Your task to perform on an android device: turn pop-ups off in chrome Image 0: 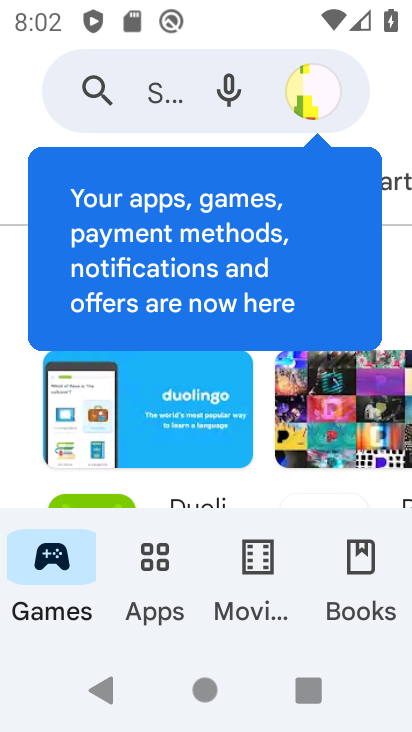
Step 0: press home button
Your task to perform on an android device: turn pop-ups off in chrome Image 1: 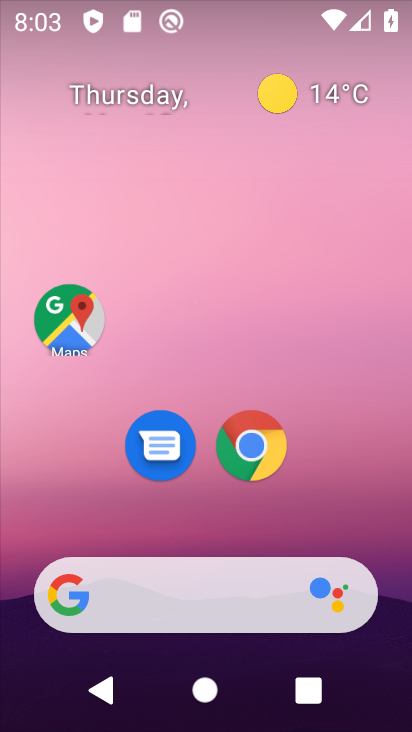
Step 1: click (255, 442)
Your task to perform on an android device: turn pop-ups off in chrome Image 2: 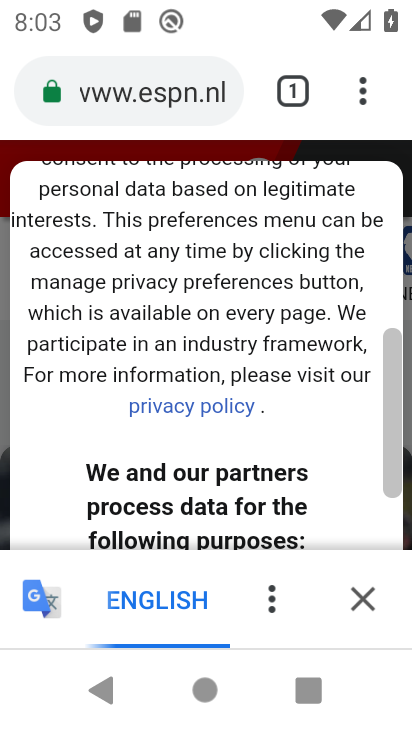
Step 2: click (365, 102)
Your task to perform on an android device: turn pop-ups off in chrome Image 3: 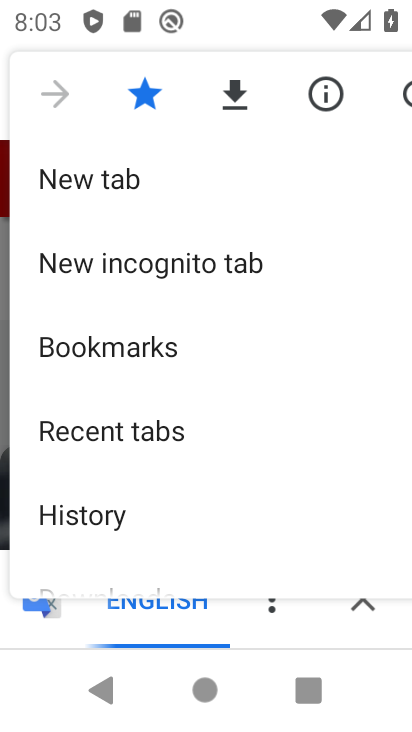
Step 3: drag from (151, 505) to (162, 161)
Your task to perform on an android device: turn pop-ups off in chrome Image 4: 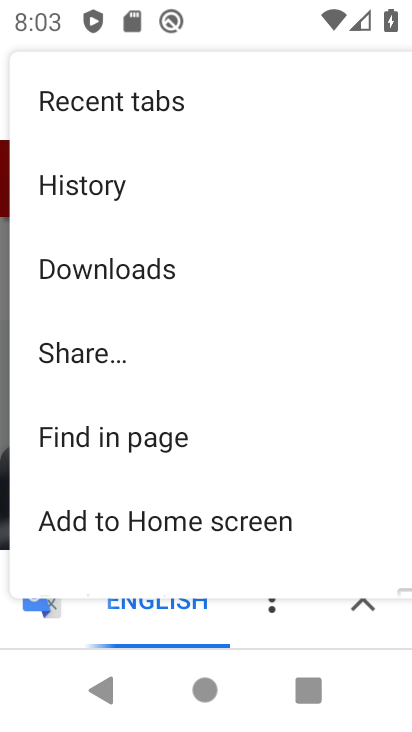
Step 4: drag from (126, 525) to (147, 230)
Your task to perform on an android device: turn pop-ups off in chrome Image 5: 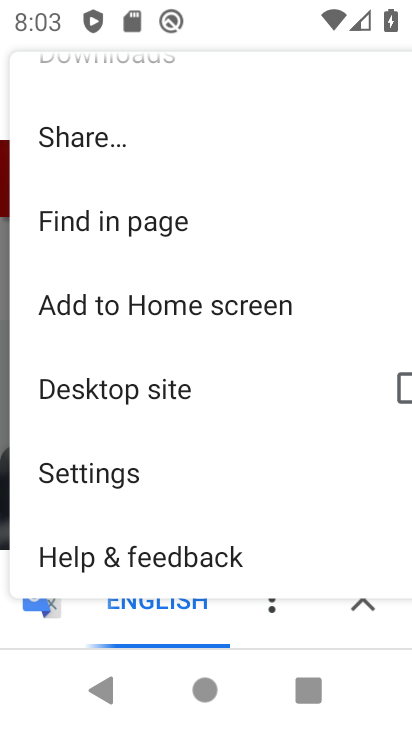
Step 5: click (113, 478)
Your task to perform on an android device: turn pop-ups off in chrome Image 6: 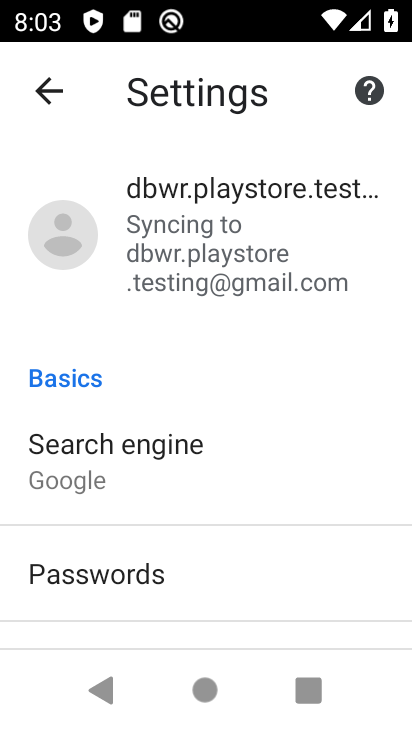
Step 6: drag from (172, 577) to (200, 239)
Your task to perform on an android device: turn pop-ups off in chrome Image 7: 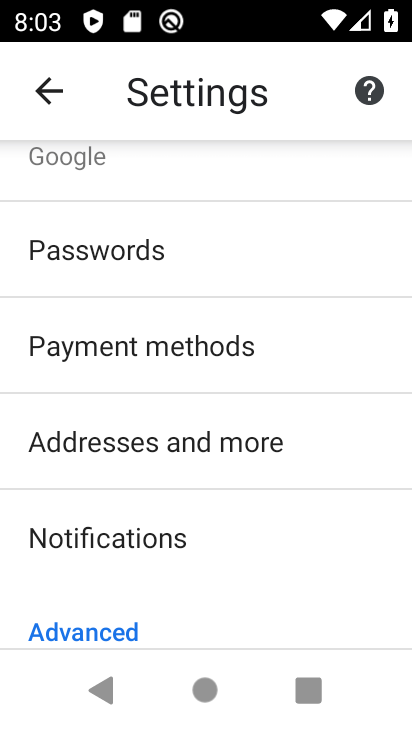
Step 7: drag from (204, 580) to (207, 235)
Your task to perform on an android device: turn pop-ups off in chrome Image 8: 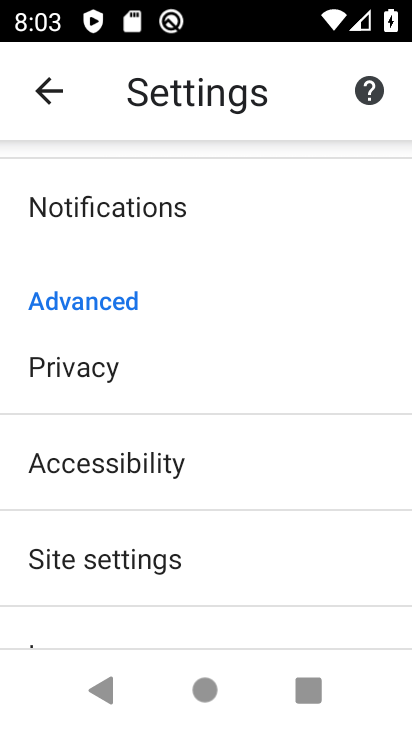
Step 8: click (127, 555)
Your task to perform on an android device: turn pop-ups off in chrome Image 9: 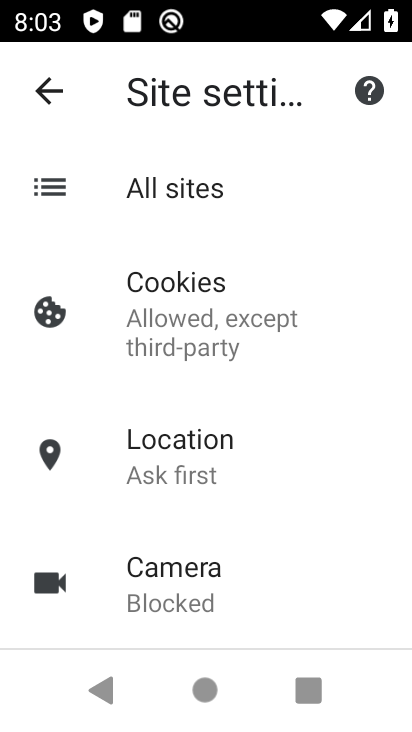
Step 9: drag from (182, 600) to (186, 280)
Your task to perform on an android device: turn pop-ups off in chrome Image 10: 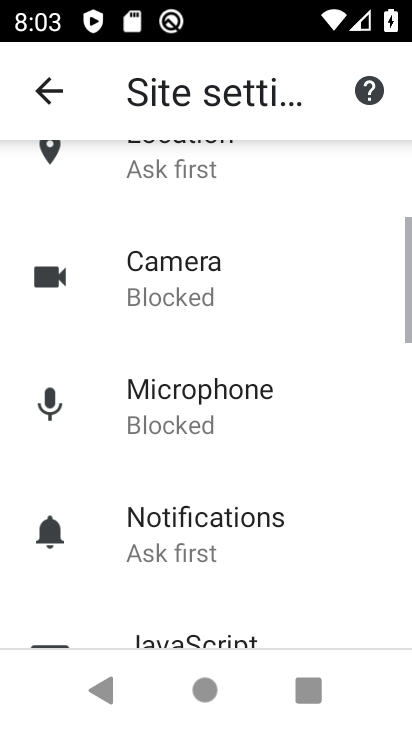
Step 10: drag from (217, 606) to (227, 347)
Your task to perform on an android device: turn pop-ups off in chrome Image 11: 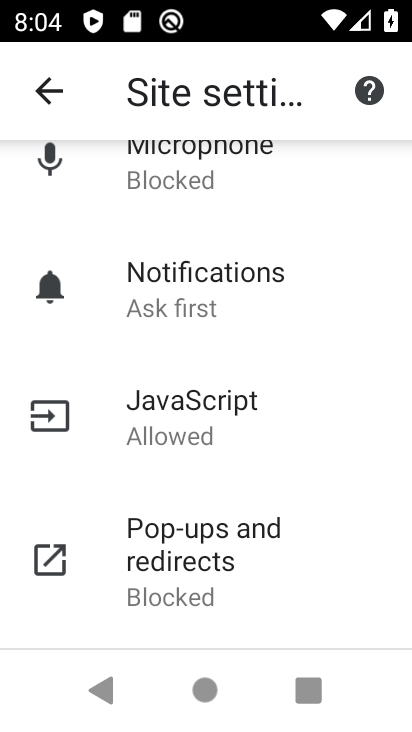
Step 11: click (227, 548)
Your task to perform on an android device: turn pop-ups off in chrome Image 12: 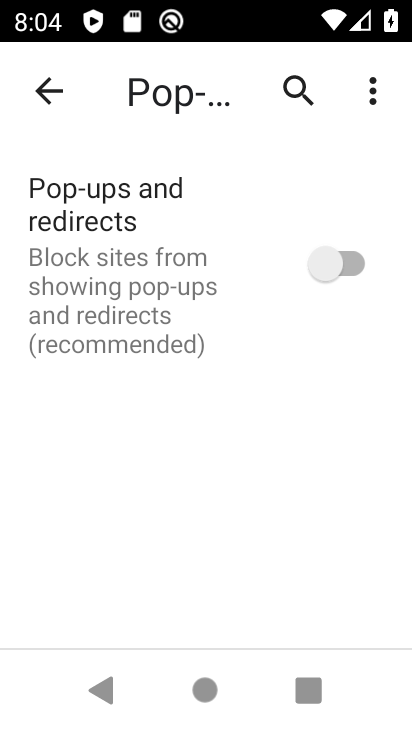
Step 12: task complete